Your task to perform on an android device: set the stopwatch Image 0: 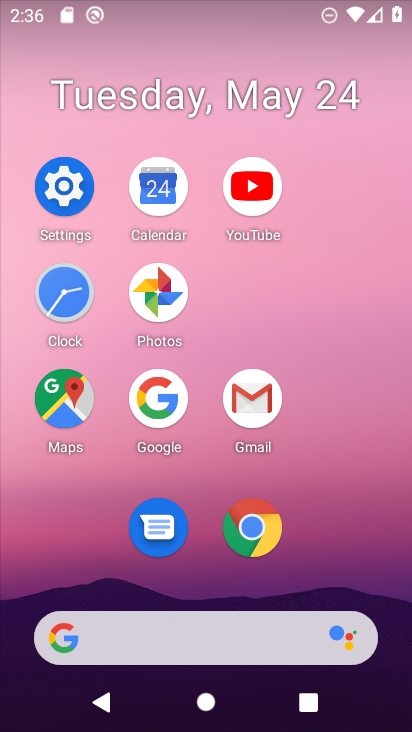
Step 0: click (37, 306)
Your task to perform on an android device: set the stopwatch Image 1: 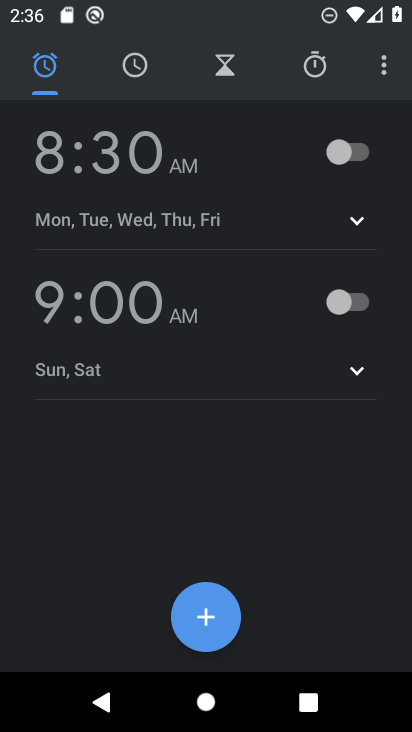
Step 1: click (314, 56)
Your task to perform on an android device: set the stopwatch Image 2: 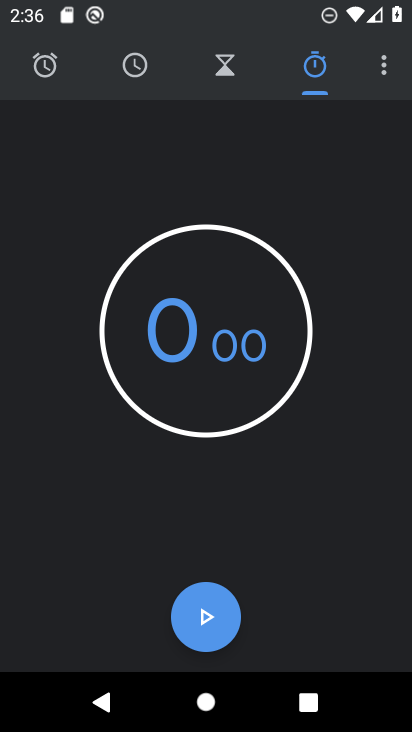
Step 2: click (206, 602)
Your task to perform on an android device: set the stopwatch Image 3: 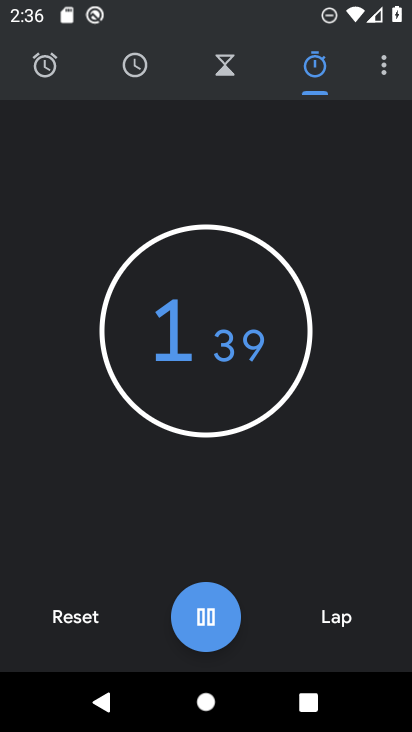
Step 3: task complete